Your task to perform on an android device: change the clock display to analog Image 0: 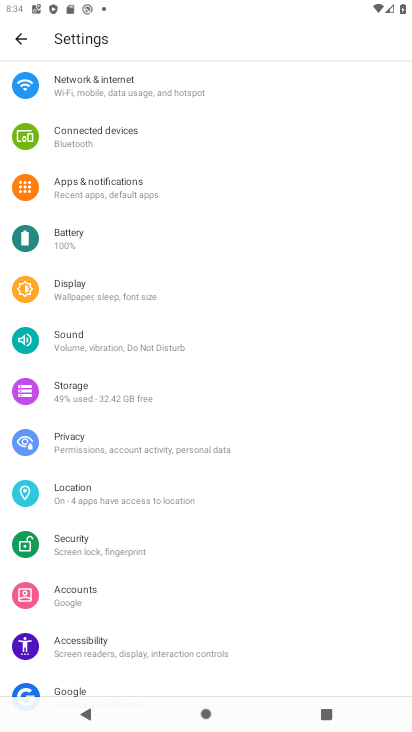
Step 0: press home button
Your task to perform on an android device: change the clock display to analog Image 1: 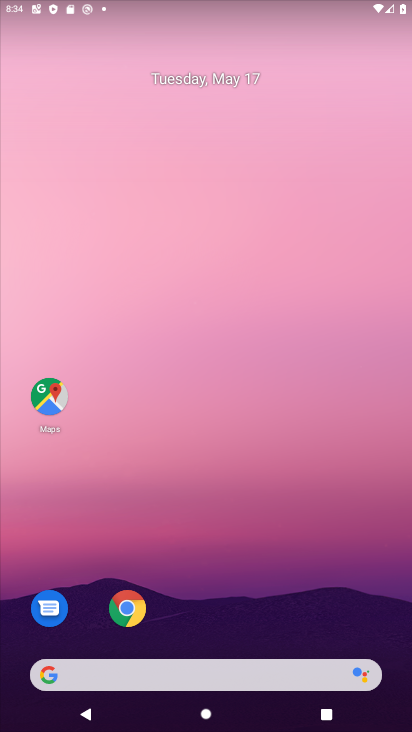
Step 1: drag from (200, 616) to (227, 90)
Your task to perform on an android device: change the clock display to analog Image 2: 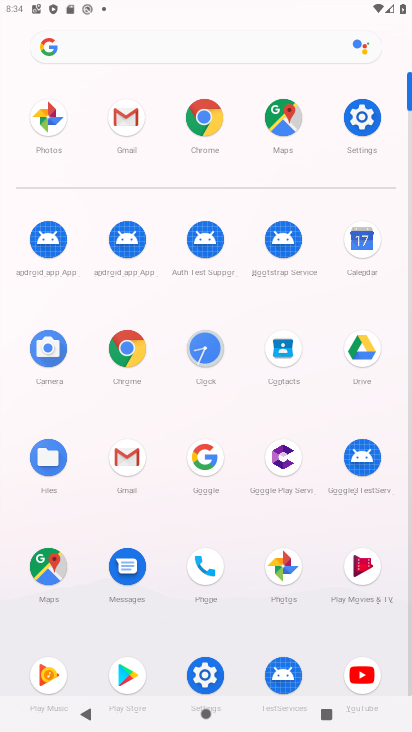
Step 2: click (204, 340)
Your task to perform on an android device: change the clock display to analog Image 3: 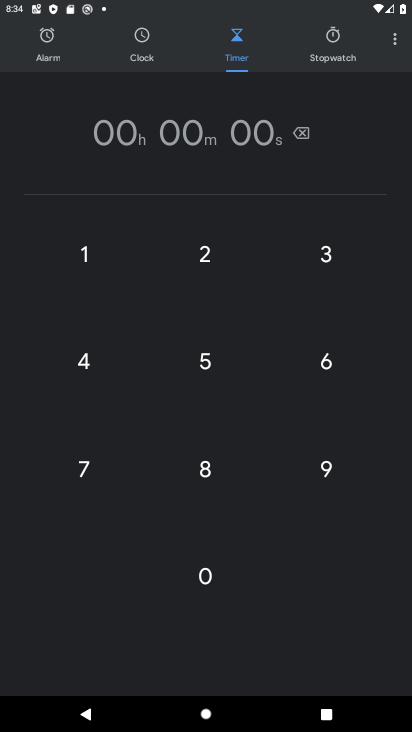
Step 3: click (400, 43)
Your task to perform on an android device: change the clock display to analog Image 4: 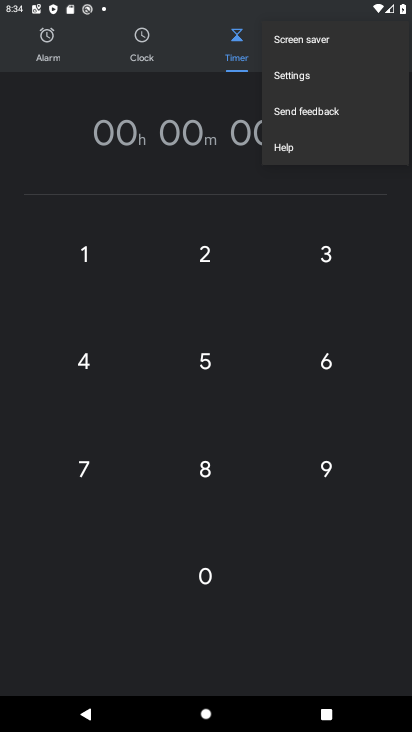
Step 4: click (294, 68)
Your task to perform on an android device: change the clock display to analog Image 5: 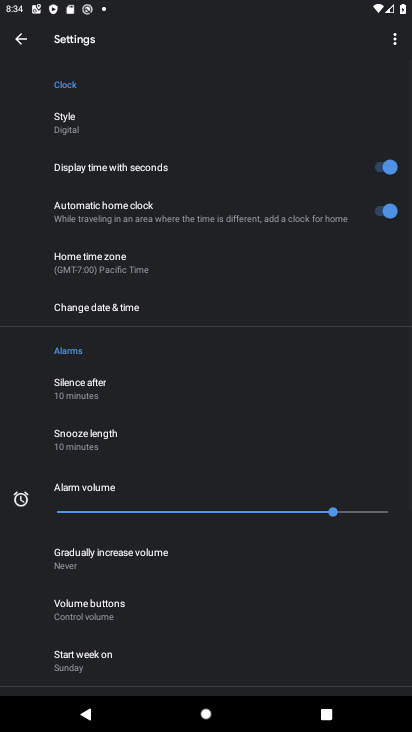
Step 5: click (55, 128)
Your task to perform on an android device: change the clock display to analog Image 6: 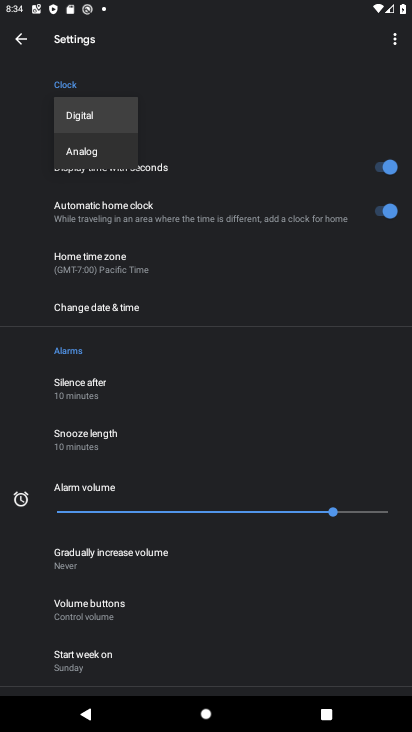
Step 6: click (103, 147)
Your task to perform on an android device: change the clock display to analog Image 7: 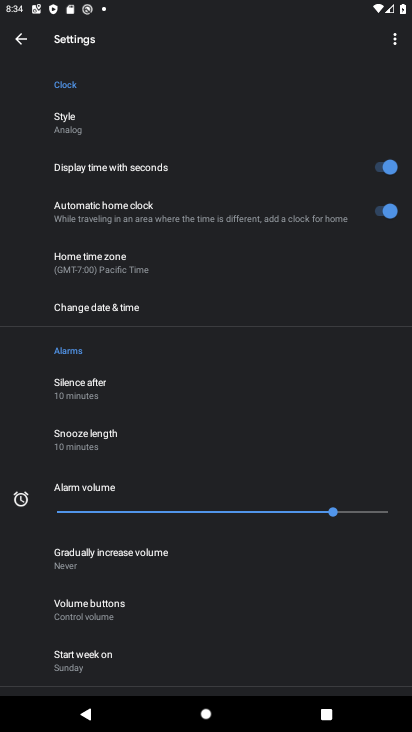
Step 7: task complete